Your task to perform on an android device: Open Amazon Image 0: 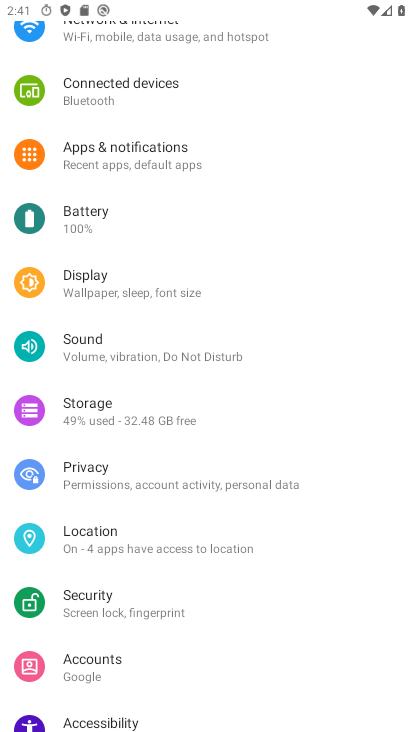
Step 0: press home button
Your task to perform on an android device: Open Amazon Image 1: 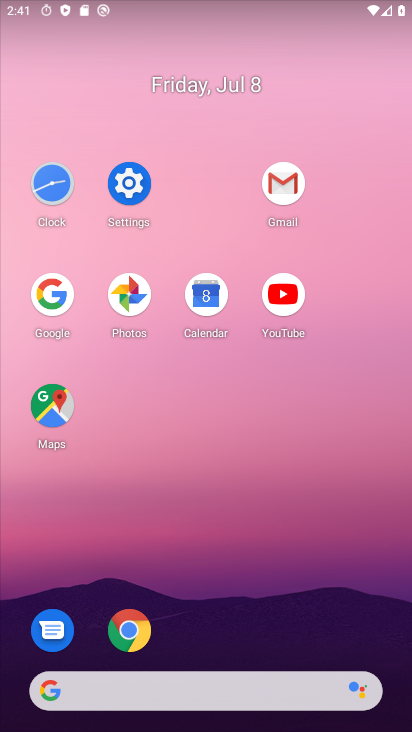
Step 1: click (135, 625)
Your task to perform on an android device: Open Amazon Image 2: 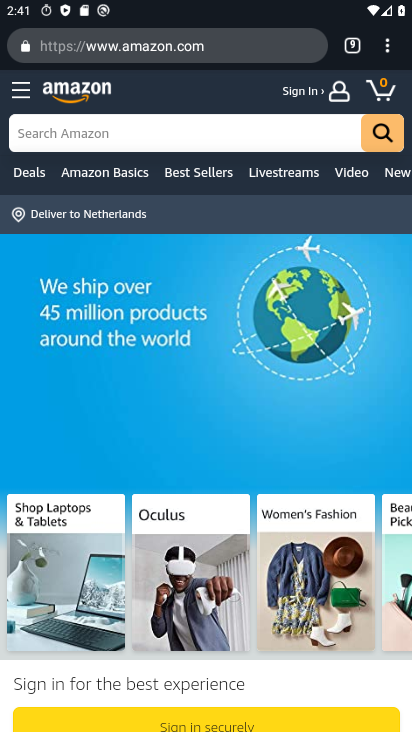
Step 2: task complete